Your task to perform on an android device: turn on sleep mode Image 0: 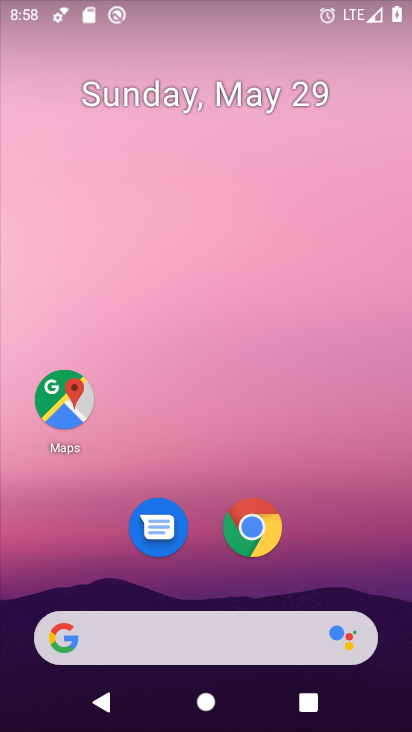
Step 0: press home button
Your task to perform on an android device: turn on sleep mode Image 1: 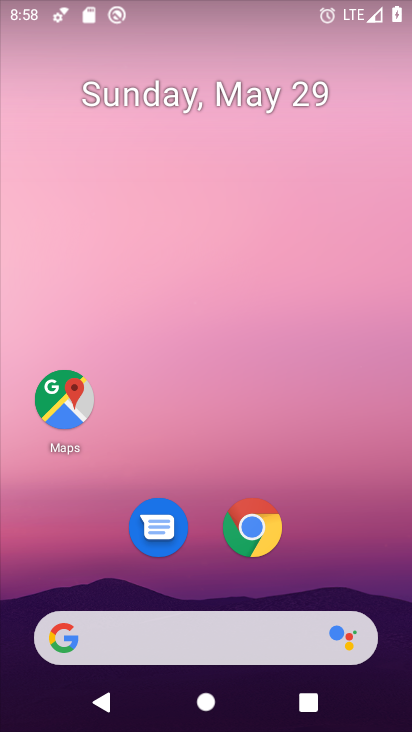
Step 1: drag from (216, 573) to (276, 57)
Your task to perform on an android device: turn on sleep mode Image 2: 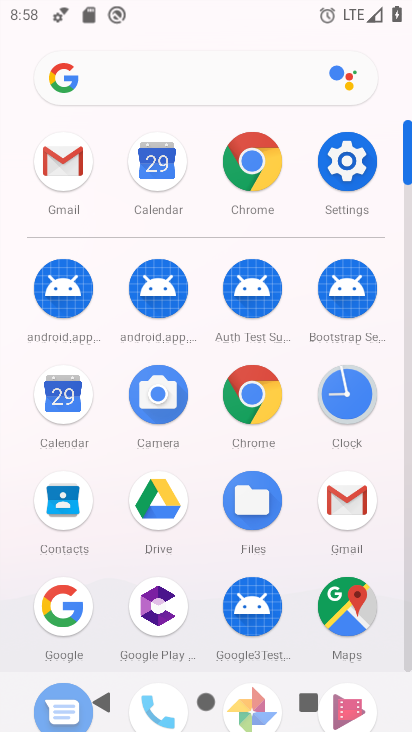
Step 2: click (343, 151)
Your task to perform on an android device: turn on sleep mode Image 3: 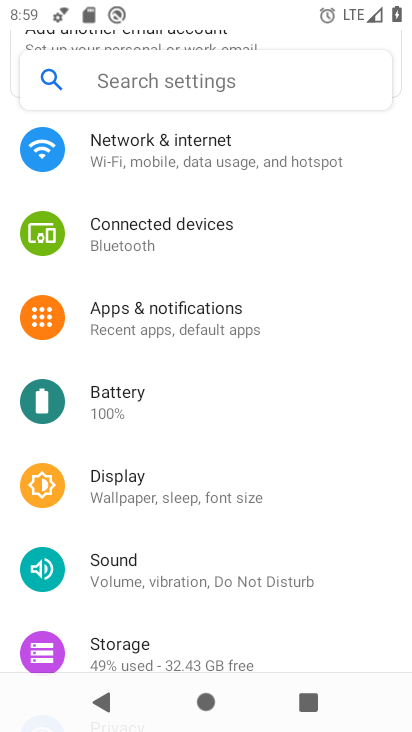
Step 3: click (144, 496)
Your task to perform on an android device: turn on sleep mode Image 4: 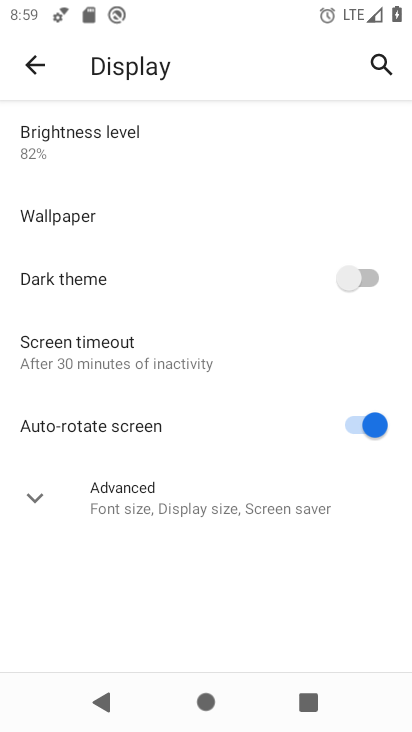
Step 4: click (29, 488)
Your task to perform on an android device: turn on sleep mode Image 5: 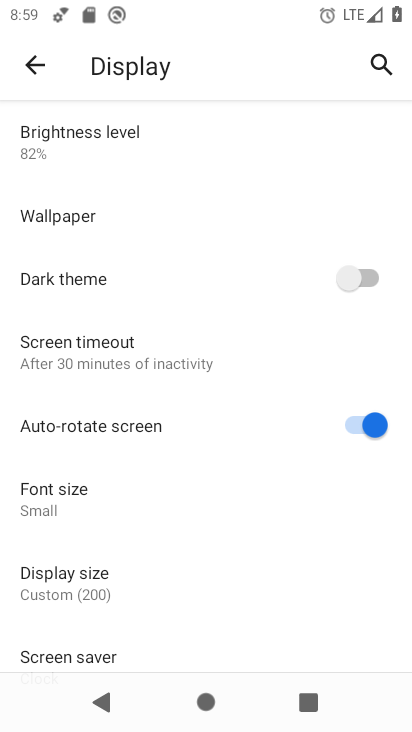
Step 5: task complete